Your task to perform on an android device: Open Youtube and go to the subscriptions tab Image 0: 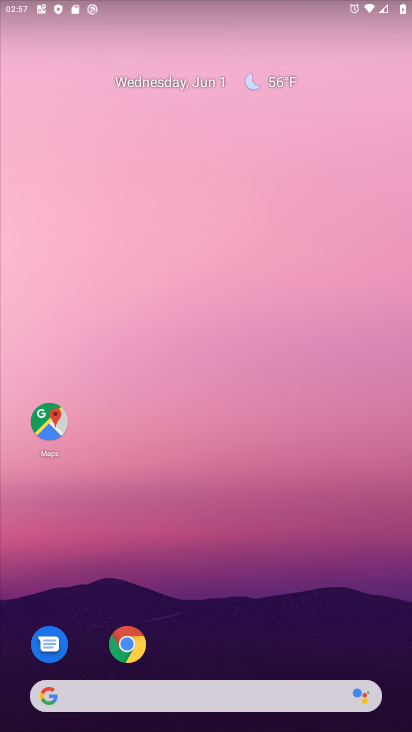
Step 0: drag from (249, 269) to (260, 156)
Your task to perform on an android device: Open Youtube and go to the subscriptions tab Image 1: 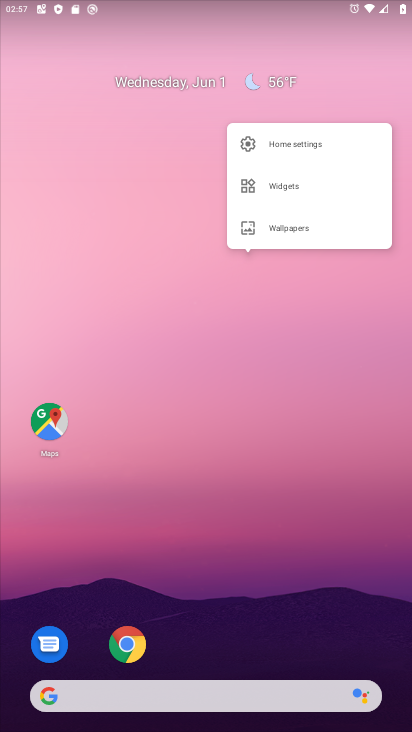
Step 1: drag from (227, 658) to (208, 187)
Your task to perform on an android device: Open Youtube and go to the subscriptions tab Image 2: 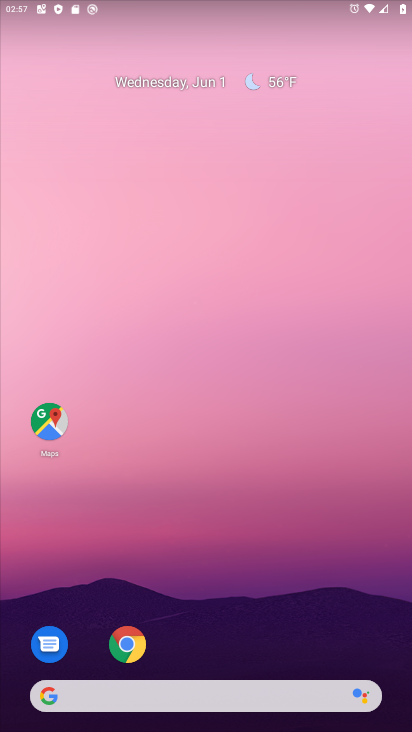
Step 2: click (221, 270)
Your task to perform on an android device: Open Youtube and go to the subscriptions tab Image 3: 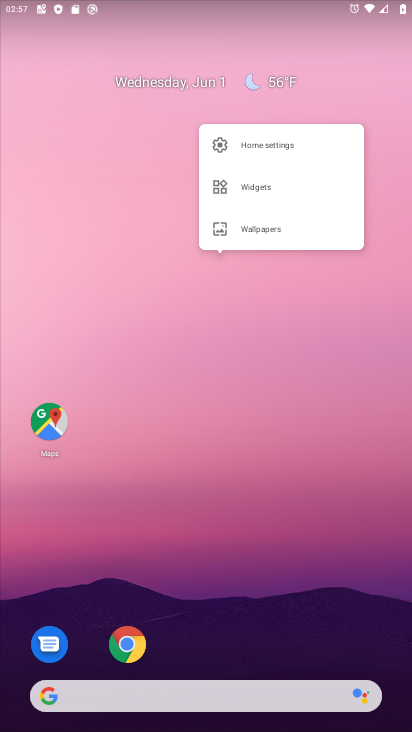
Step 3: drag from (275, 684) to (270, 212)
Your task to perform on an android device: Open Youtube and go to the subscriptions tab Image 4: 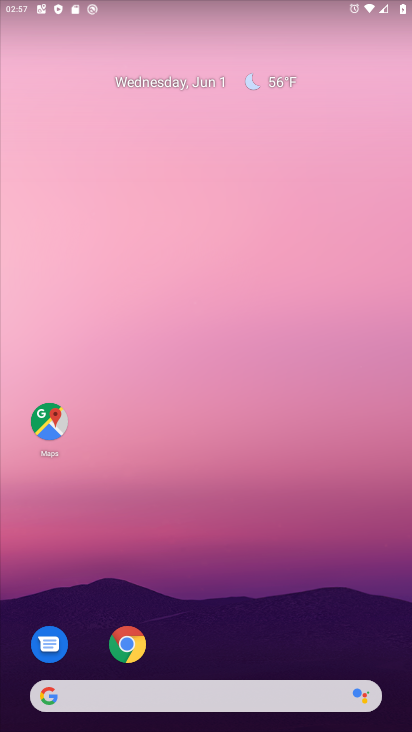
Step 4: drag from (199, 643) to (177, 177)
Your task to perform on an android device: Open Youtube and go to the subscriptions tab Image 5: 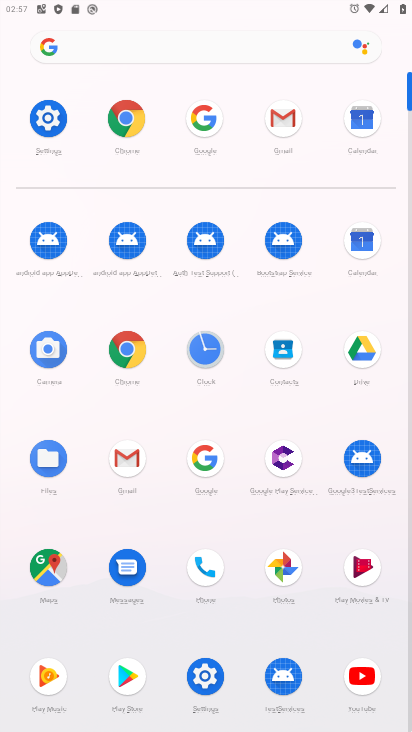
Step 5: click (373, 673)
Your task to perform on an android device: Open Youtube and go to the subscriptions tab Image 6: 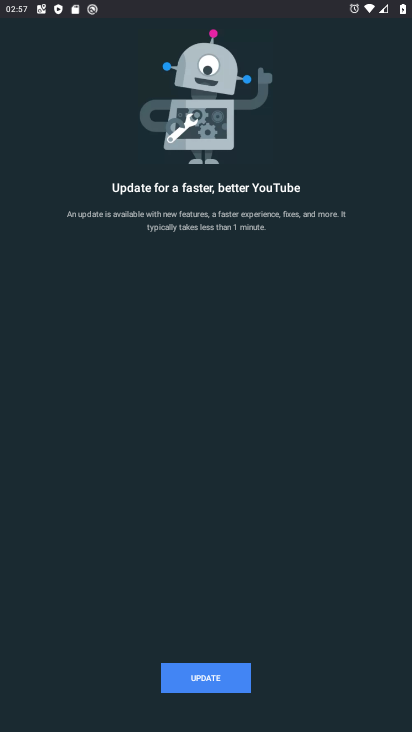
Step 6: click (229, 717)
Your task to perform on an android device: Open Youtube and go to the subscriptions tab Image 7: 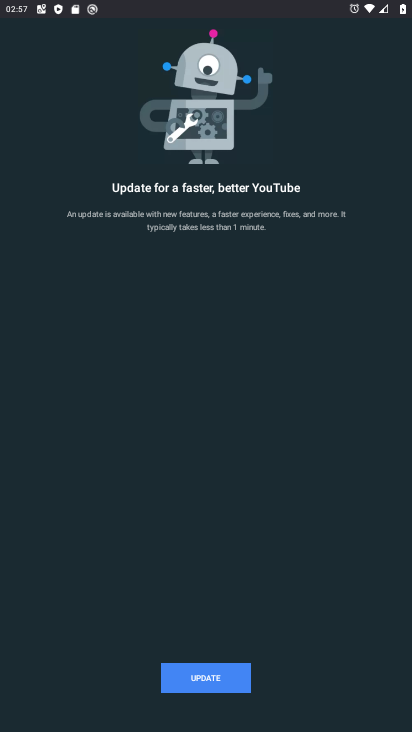
Step 7: click (229, 671)
Your task to perform on an android device: Open Youtube and go to the subscriptions tab Image 8: 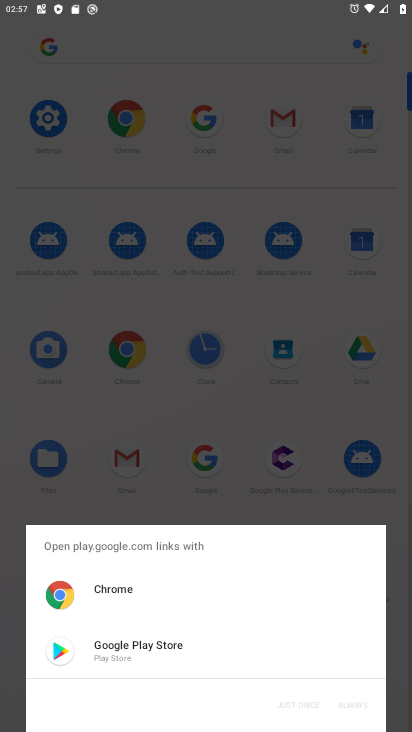
Step 8: click (126, 653)
Your task to perform on an android device: Open Youtube and go to the subscriptions tab Image 9: 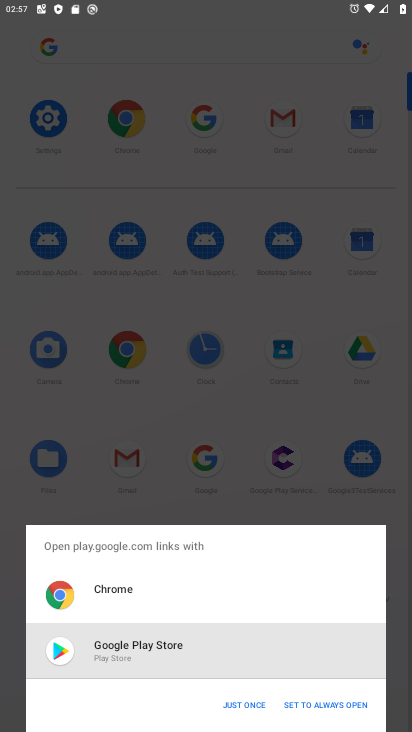
Step 9: click (126, 652)
Your task to perform on an android device: Open Youtube and go to the subscriptions tab Image 10: 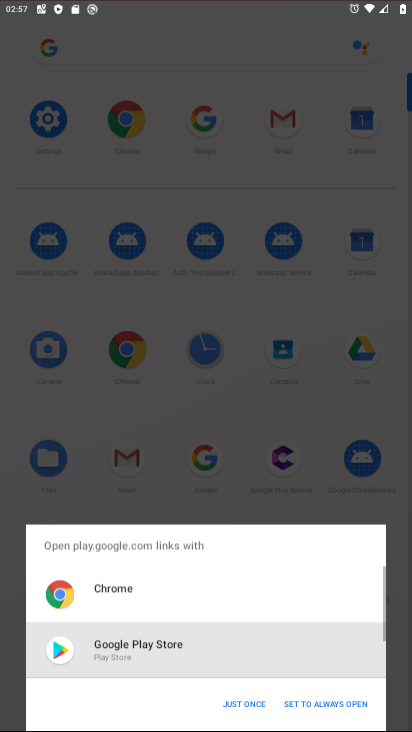
Step 10: click (343, 699)
Your task to perform on an android device: Open Youtube and go to the subscriptions tab Image 11: 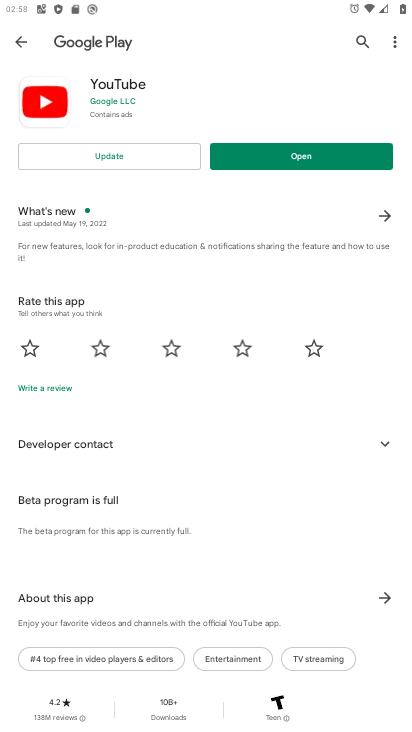
Step 11: click (137, 155)
Your task to perform on an android device: Open Youtube and go to the subscriptions tab Image 12: 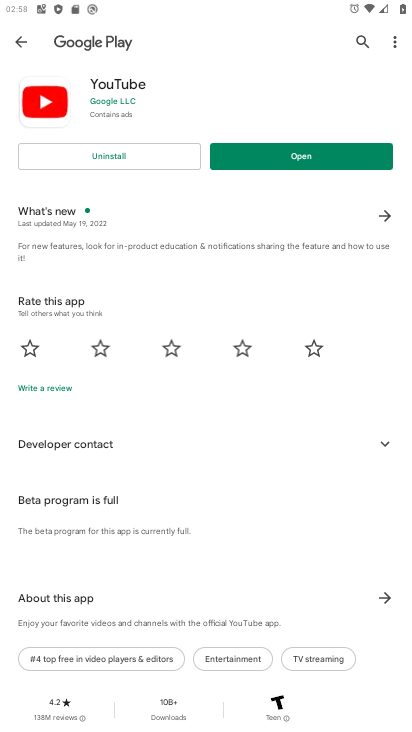
Step 12: click (278, 159)
Your task to perform on an android device: Open Youtube and go to the subscriptions tab Image 13: 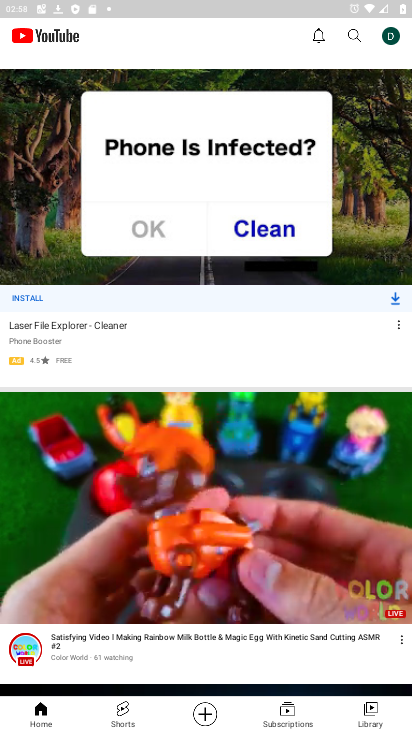
Step 13: click (293, 705)
Your task to perform on an android device: Open Youtube and go to the subscriptions tab Image 14: 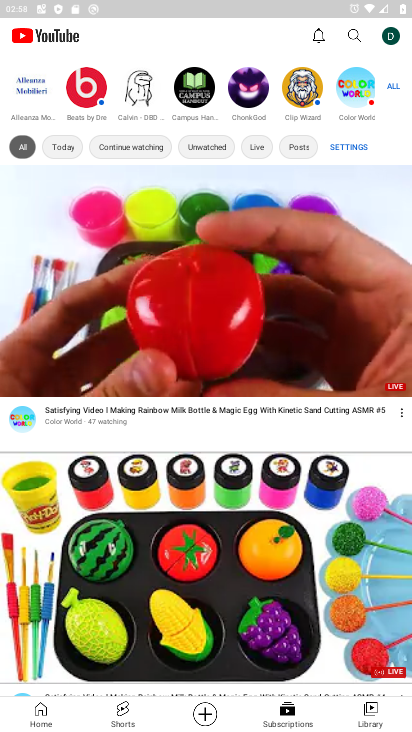
Step 14: click (286, 715)
Your task to perform on an android device: Open Youtube and go to the subscriptions tab Image 15: 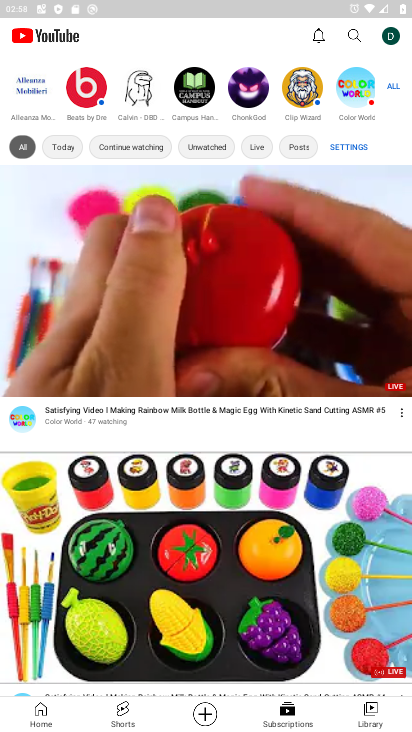
Step 15: click (280, 719)
Your task to perform on an android device: Open Youtube and go to the subscriptions tab Image 16: 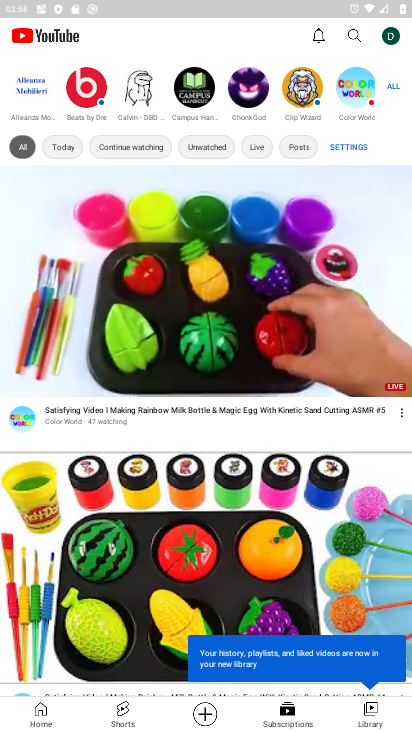
Step 16: task complete